Your task to perform on an android device: Open Wikipedia Image 0: 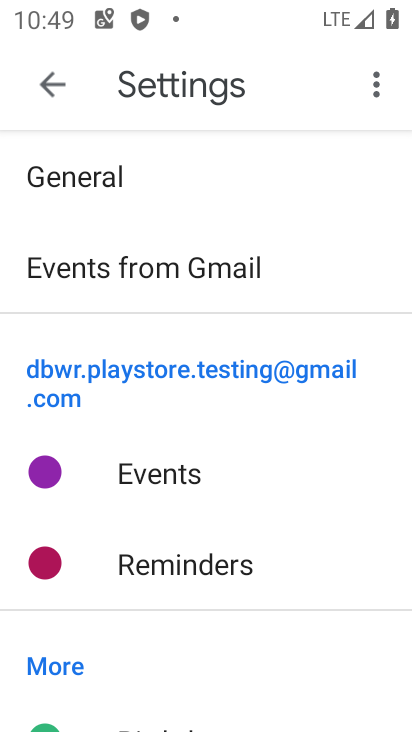
Step 0: press home button
Your task to perform on an android device: Open Wikipedia Image 1: 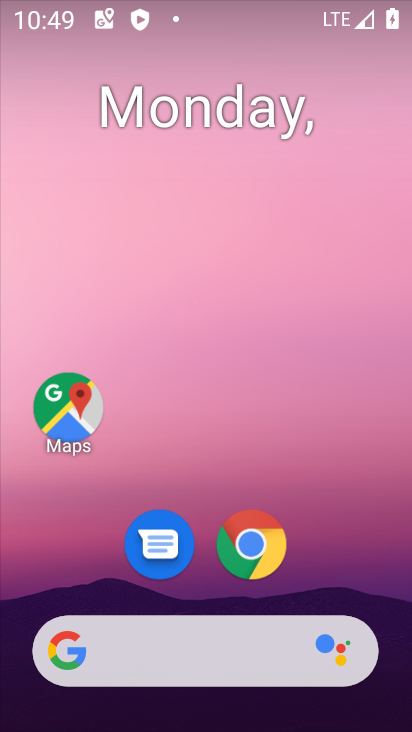
Step 1: click (256, 532)
Your task to perform on an android device: Open Wikipedia Image 2: 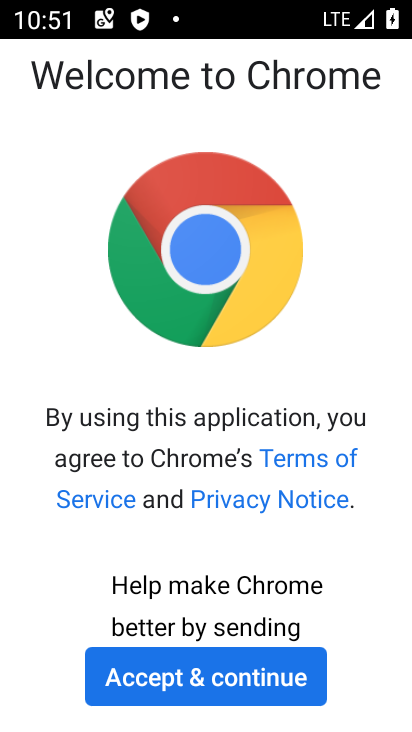
Step 2: click (228, 684)
Your task to perform on an android device: Open Wikipedia Image 3: 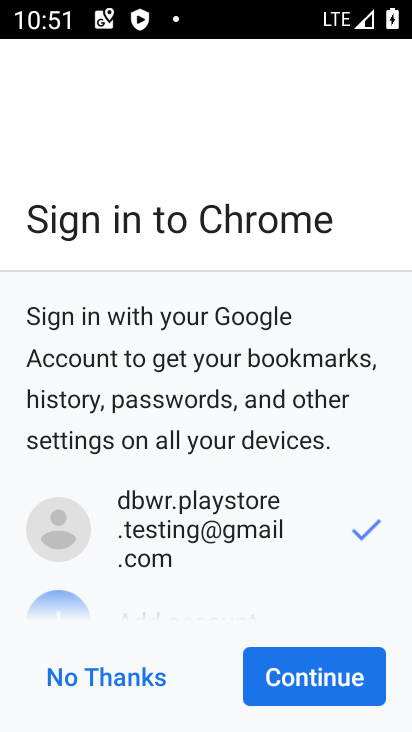
Step 3: click (274, 680)
Your task to perform on an android device: Open Wikipedia Image 4: 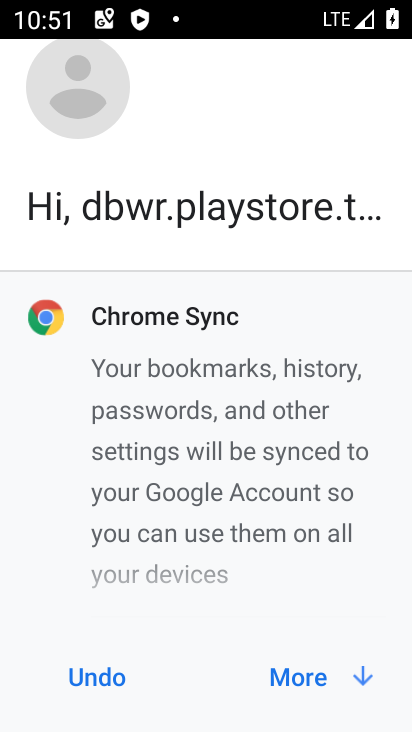
Step 4: click (295, 683)
Your task to perform on an android device: Open Wikipedia Image 5: 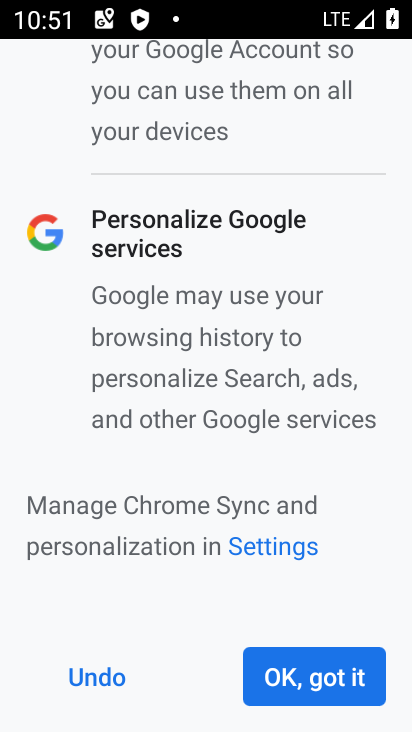
Step 5: click (287, 561)
Your task to perform on an android device: Open Wikipedia Image 6: 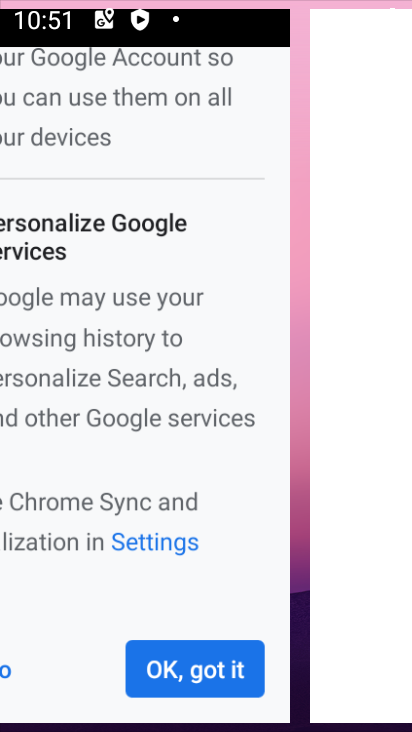
Step 6: click (296, 684)
Your task to perform on an android device: Open Wikipedia Image 7: 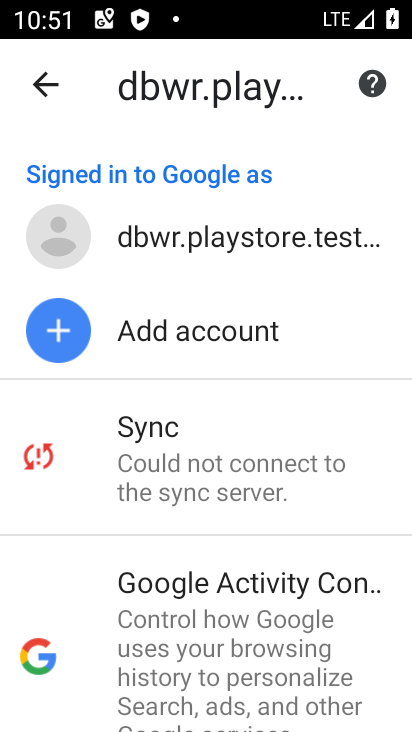
Step 7: press home button
Your task to perform on an android device: Open Wikipedia Image 8: 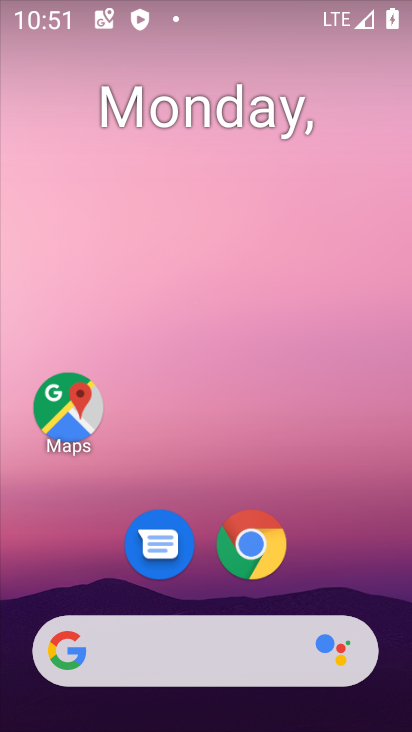
Step 8: click (232, 536)
Your task to perform on an android device: Open Wikipedia Image 9: 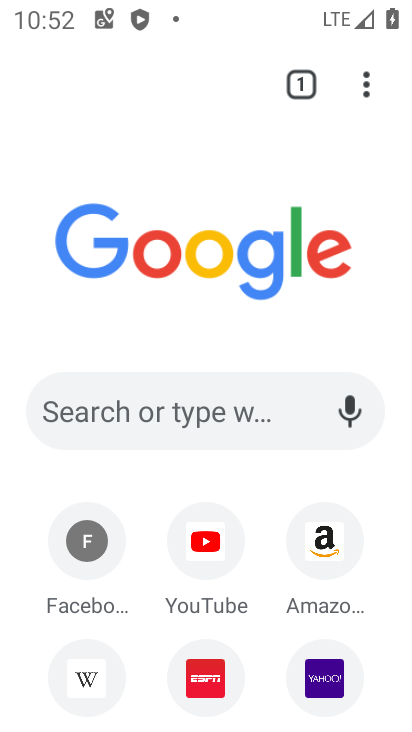
Step 9: click (156, 402)
Your task to perform on an android device: Open Wikipedia Image 10: 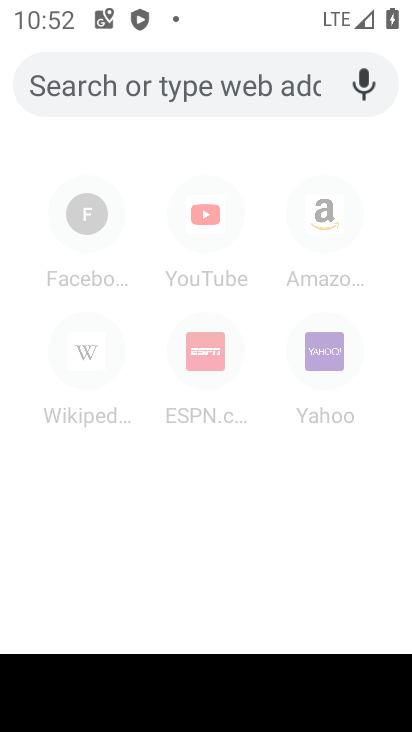
Step 10: type "Wikipedia"
Your task to perform on an android device: Open Wikipedia Image 11: 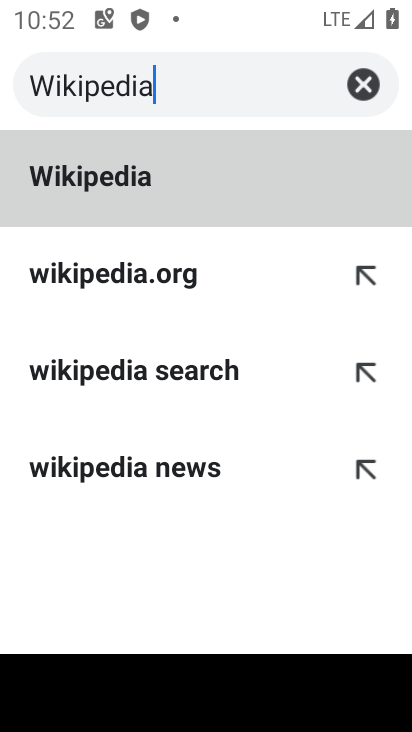
Step 11: click (102, 183)
Your task to perform on an android device: Open Wikipedia Image 12: 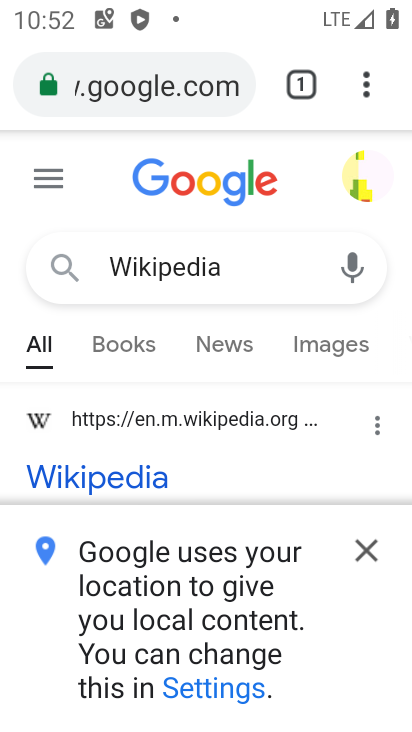
Step 12: task complete